Your task to perform on an android device: Go to sound settings Image 0: 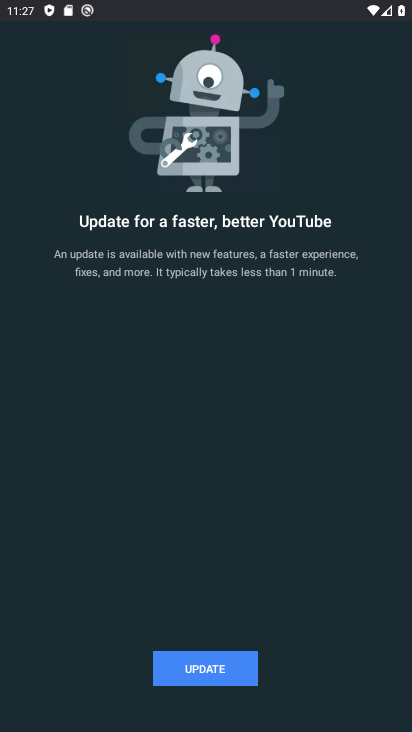
Step 0: press back button
Your task to perform on an android device: Go to sound settings Image 1: 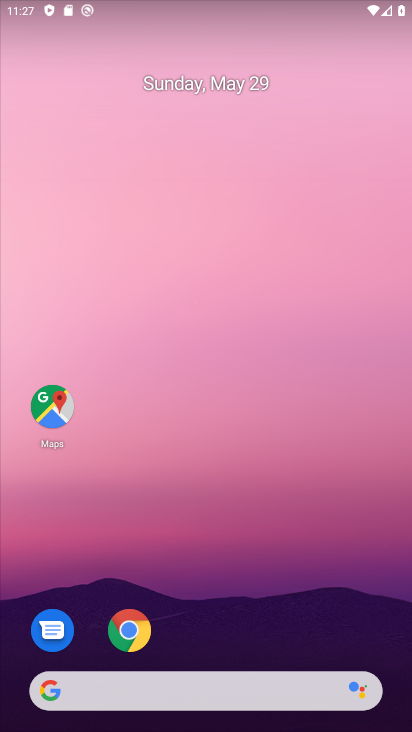
Step 1: drag from (131, 710) to (120, 65)
Your task to perform on an android device: Go to sound settings Image 2: 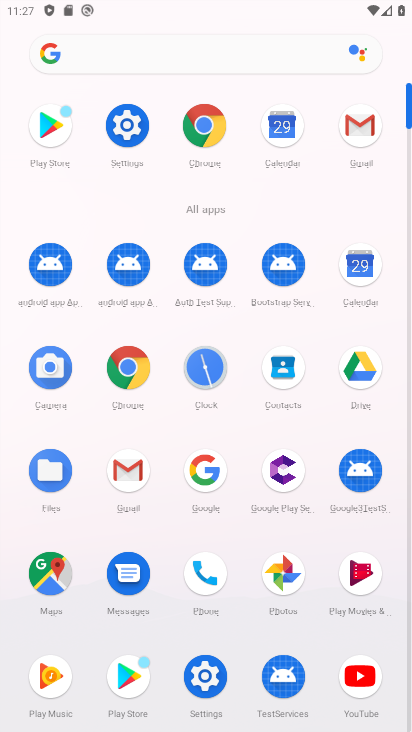
Step 2: click (127, 136)
Your task to perform on an android device: Go to sound settings Image 3: 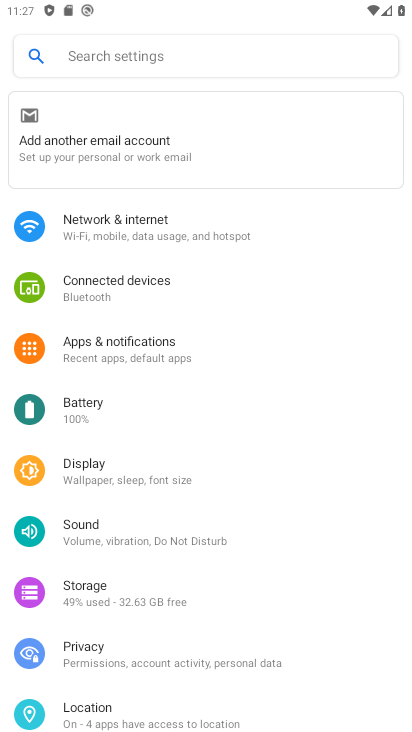
Step 3: drag from (273, 682) to (329, 248)
Your task to perform on an android device: Go to sound settings Image 4: 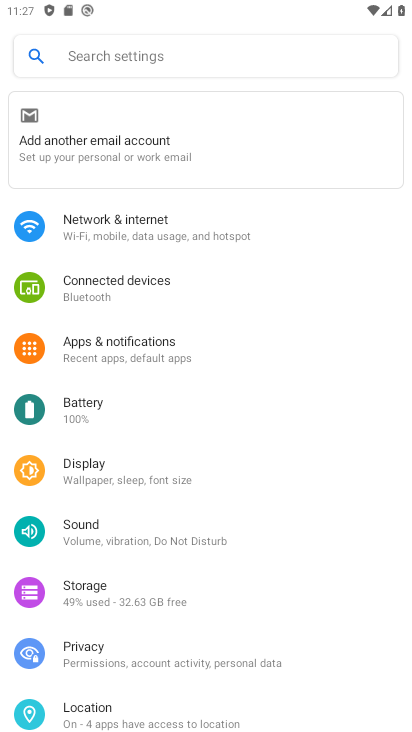
Step 4: drag from (303, 679) to (346, 200)
Your task to perform on an android device: Go to sound settings Image 5: 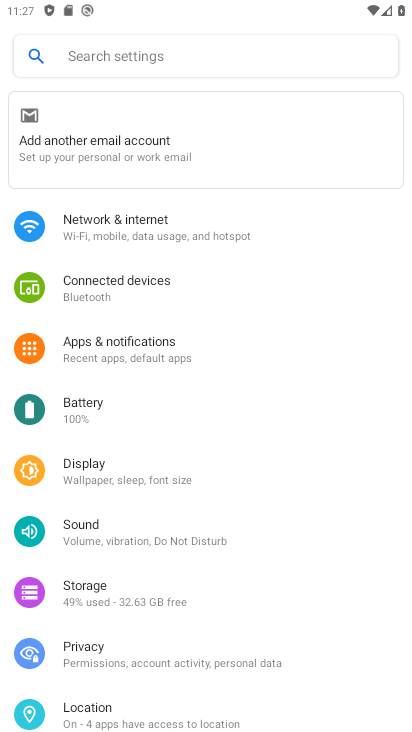
Step 5: click (113, 534)
Your task to perform on an android device: Go to sound settings Image 6: 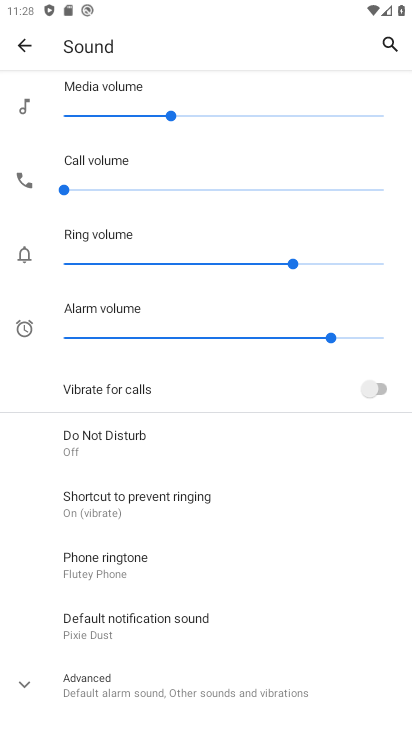
Step 6: task complete